Your task to perform on an android device: Search for apple airpods pro on newegg, select the first entry, add it to the cart, then select checkout. Image 0: 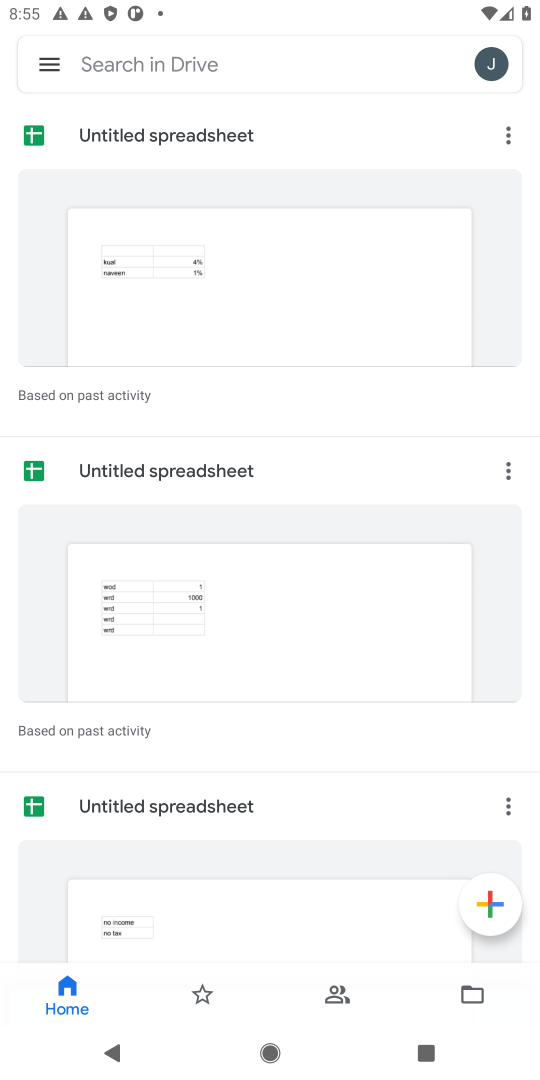
Step 0: press home button
Your task to perform on an android device: Search for apple airpods pro on newegg, select the first entry, add it to the cart, then select checkout. Image 1: 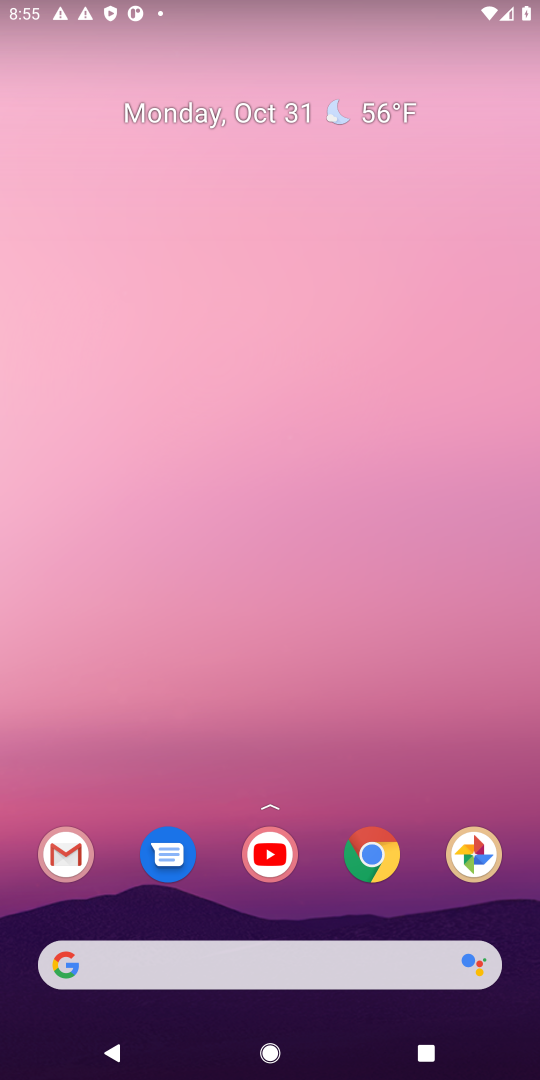
Step 1: click (166, 965)
Your task to perform on an android device: Search for apple airpods pro on newegg, select the first entry, add it to the cart, then select checkout. Image 2: 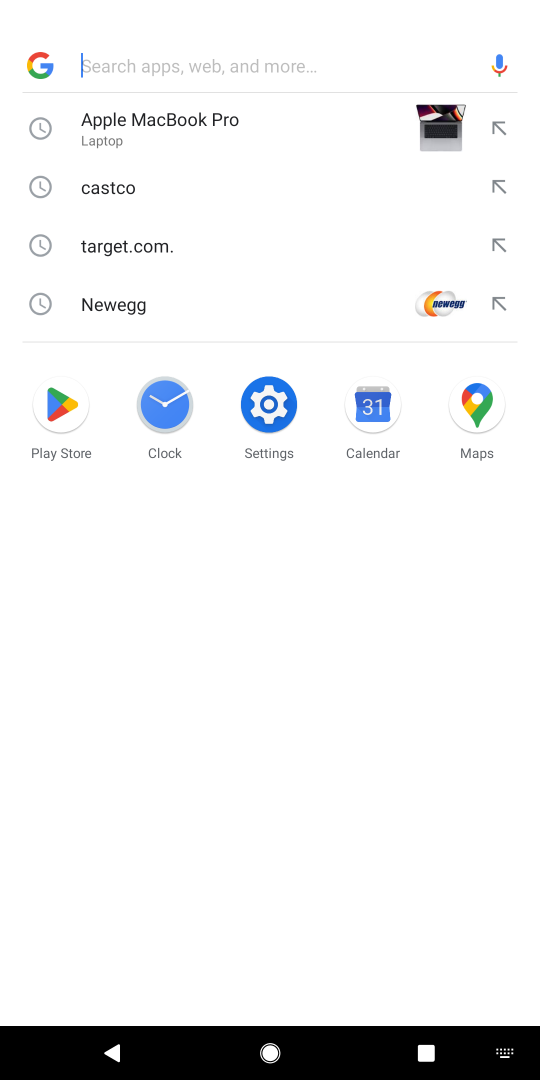
Step 2: type "newegg"
Your task to perform on an android device: Search for apple airpods pro on newegg, select the first entry, add it to the cart, then select checkout. Image 3: 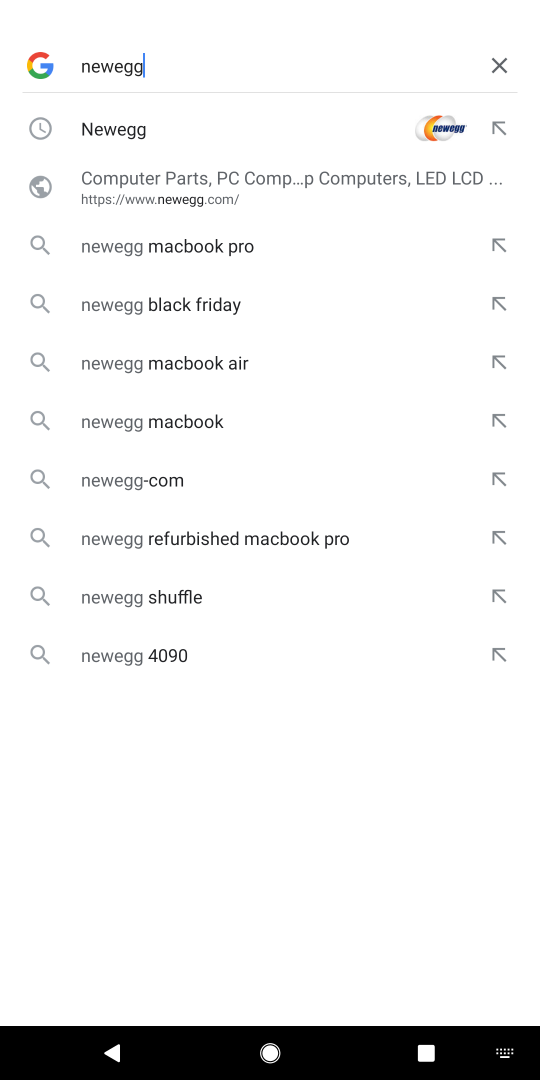
Step 3: click (113, 109)
Your task to perform on an android device: Search for apple airpods pro on newegg, select the first entry, add it to the cart, then select checkout. Image 4: 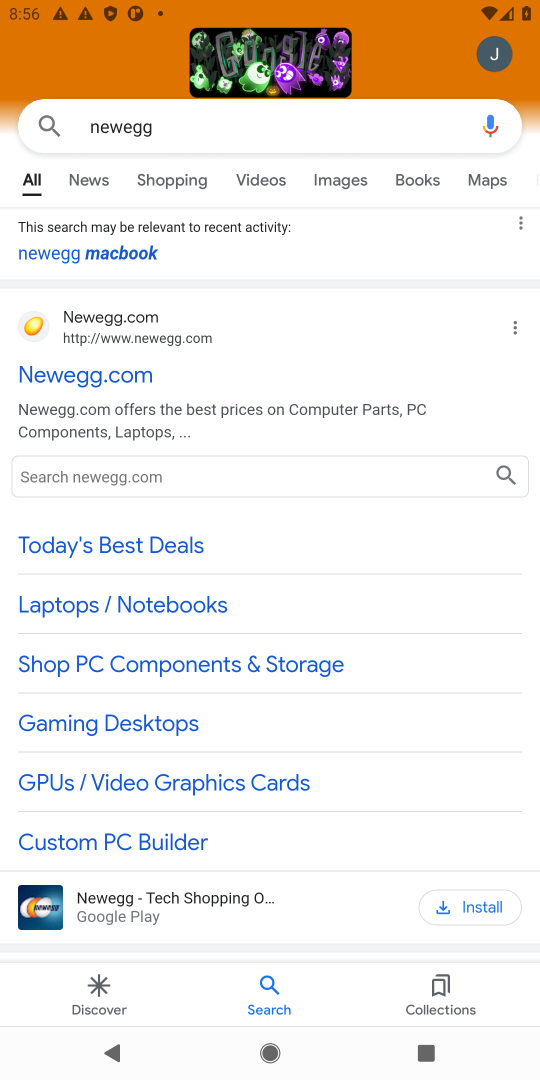
Step 4: click (118, 365)
Your task to perform on an android device: Search for apple airpods pro on newegg, select the first entry, add it to the cart, then select checkout. Image 5: 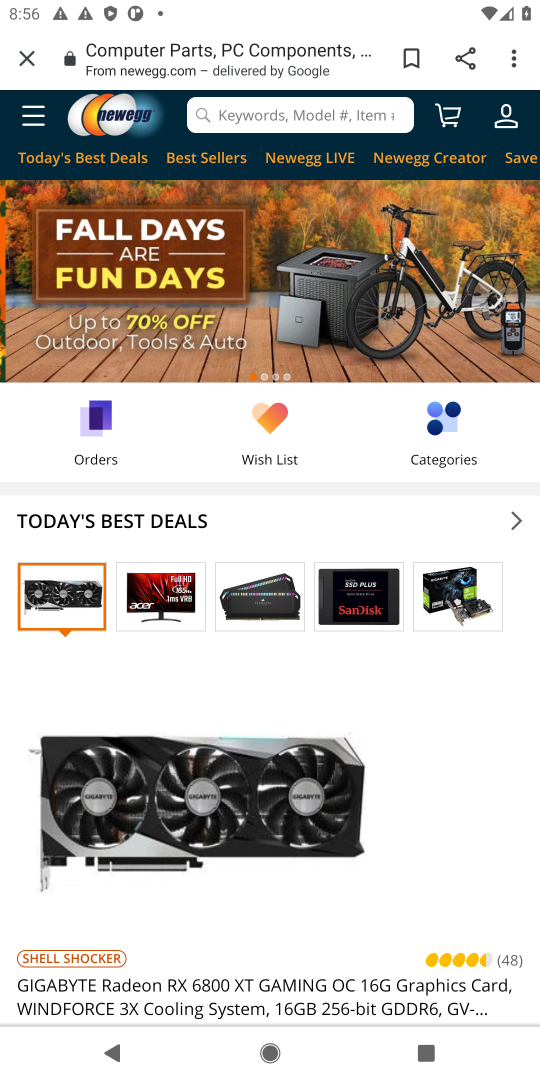
Step 5: click (280, 100)
Your task to perform on an android device: Search for apple airpods pro on newegg, select the first entry, add it to the cart, then select checkout. Image 6: 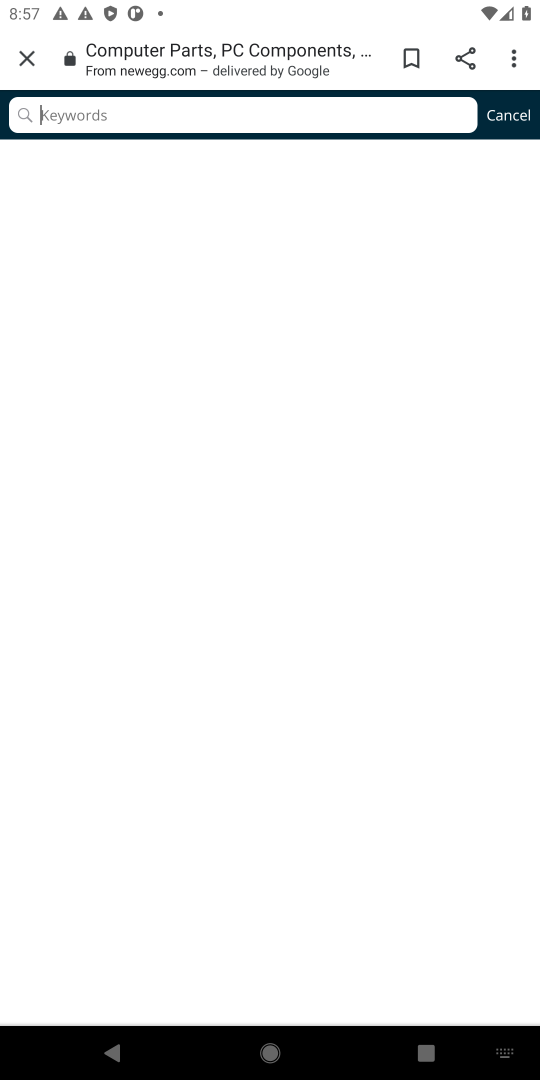
Step 6: type "airpods"
Your task to perform on an android device: Search for apple airpods pro on newegg, select the first entry, add it to the cart, then select checkout. Image 7: 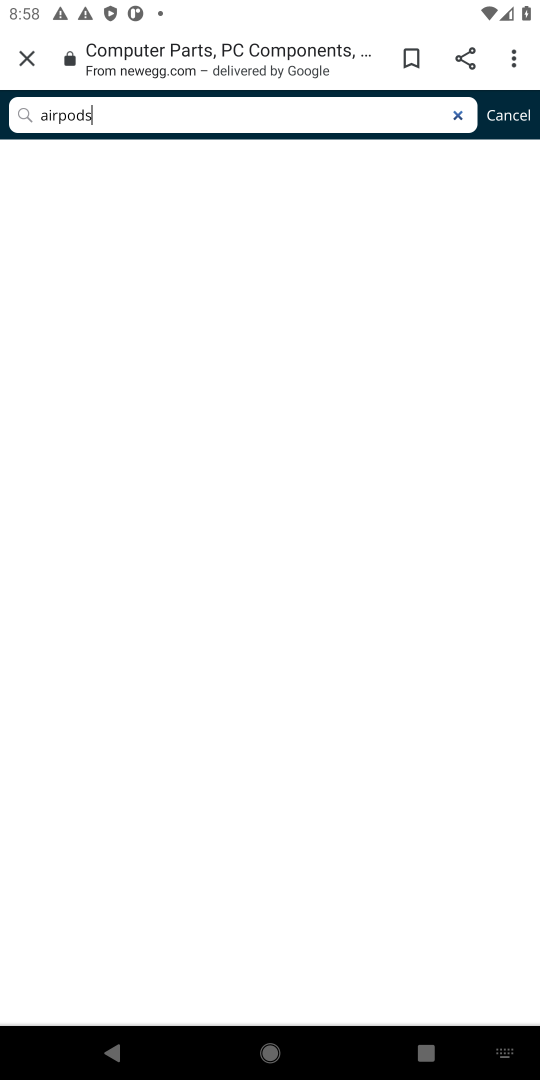
Step 7: task complete